Your task to perform on an android device: When is my next appointment? Image 0: 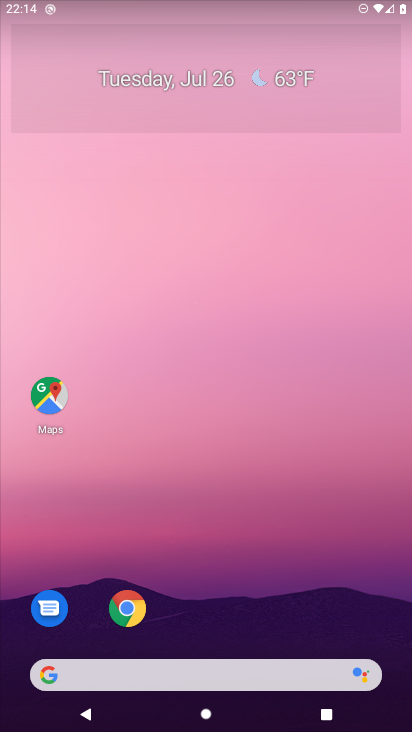
Step 0: drag from (74, 532) to (198, 4)
Your task to perform on an android device: When is my next appointment? Image 1: 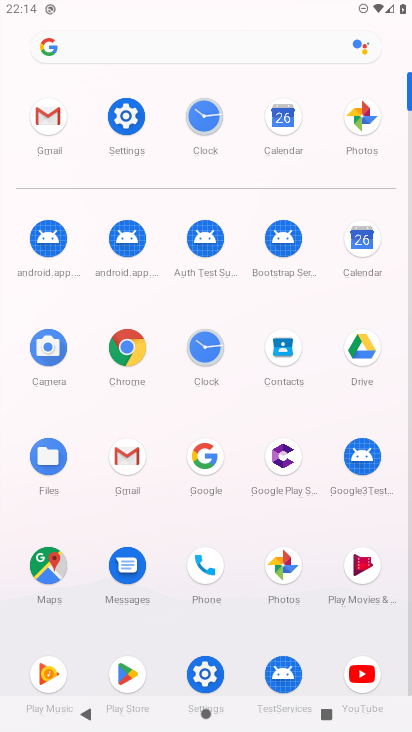
Step 1: click (356, 255)
Your task to perform on an android device: When is my next appointment? Image 2: 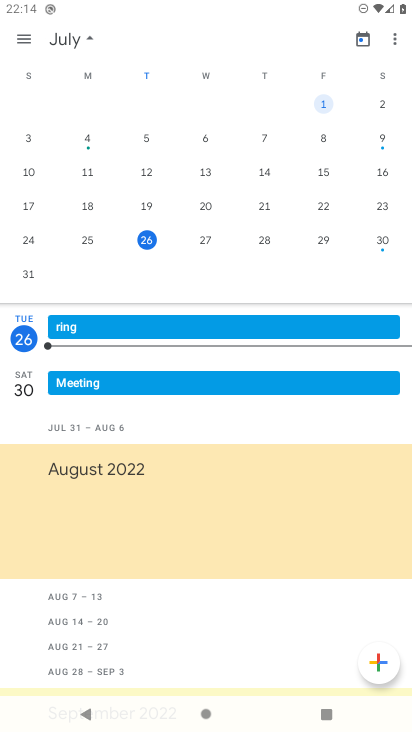
Step 2: task complete